Your task to perform on an android device: Go to Maps Image 0: 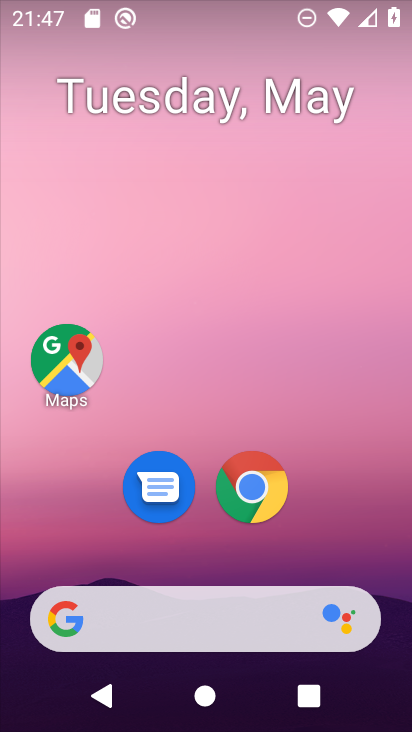
Step 0: press home button
Your task to perform on an android device: Go to Maps Image 1: 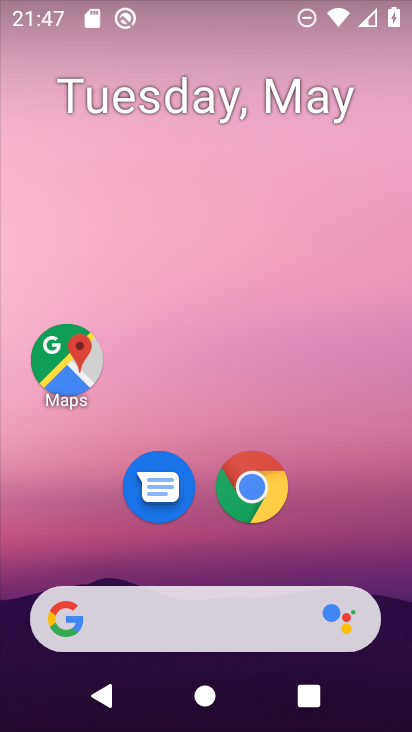
Step 1: click (73, 379)
Your task to perform on an android device: Go to Maps Image 2: 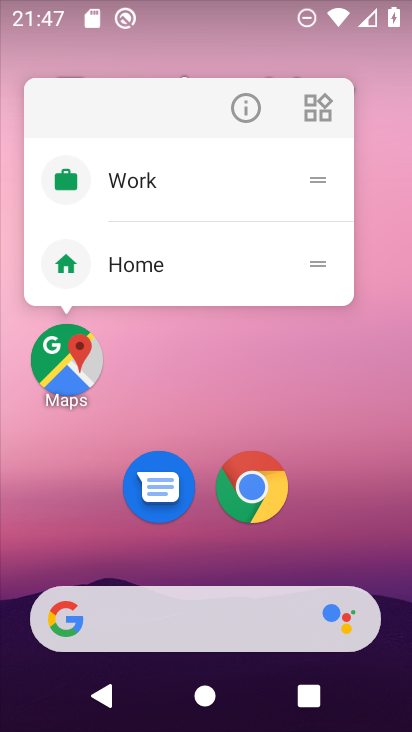
Step 2: click (64, 374)
Your task to perform on an android device: Go to Maps Image 3: 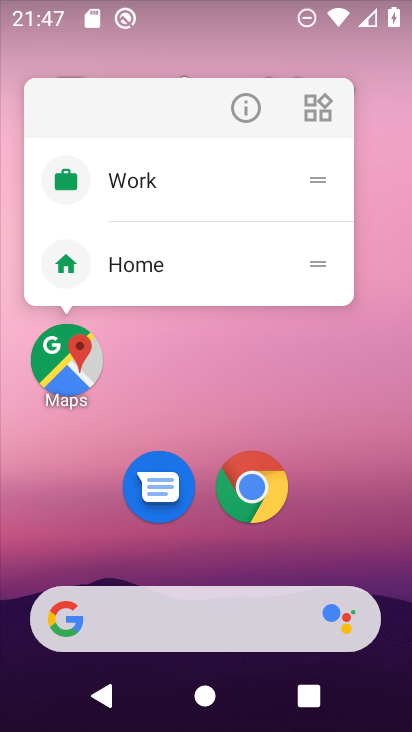
Step 3: click (64, 375)
Your task to perform on an android device: Go to Maps Image 4: 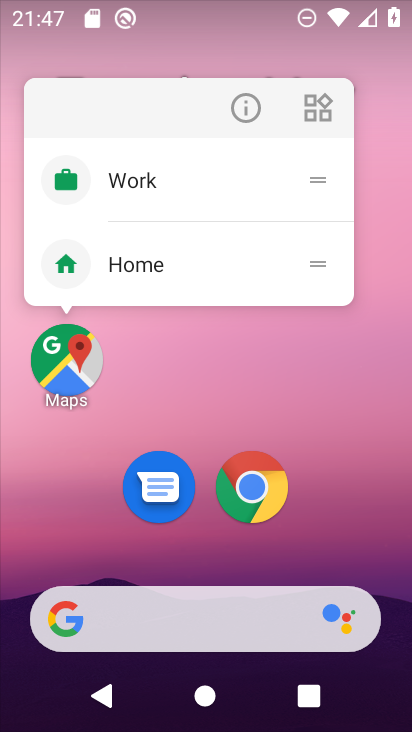
Step 4: click (71, 368)
Your task to perform on an android device: Go to Maps Image 5: 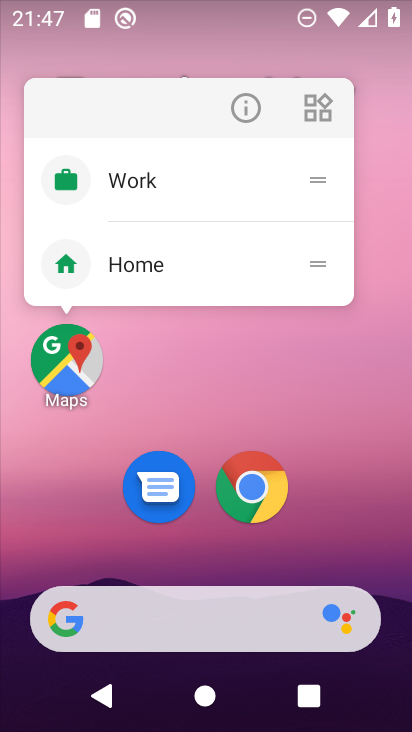
Step 5: click (61, 382)
Your task to perform on an android device: Go to Maps Image 6: 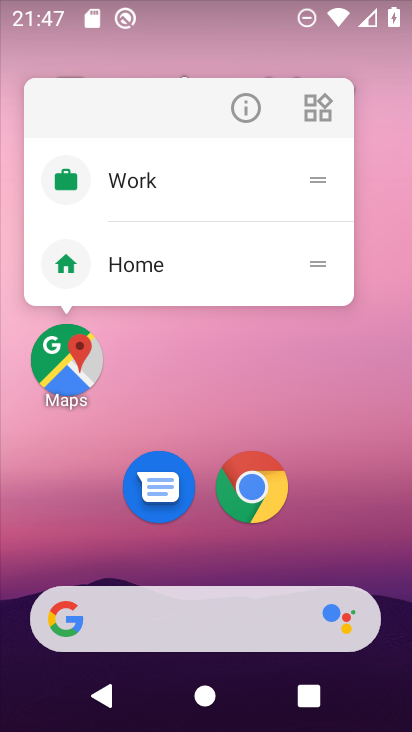
Step 6: click (65, 365)
Your task to perform on an android device: Go to Maps Image 7: 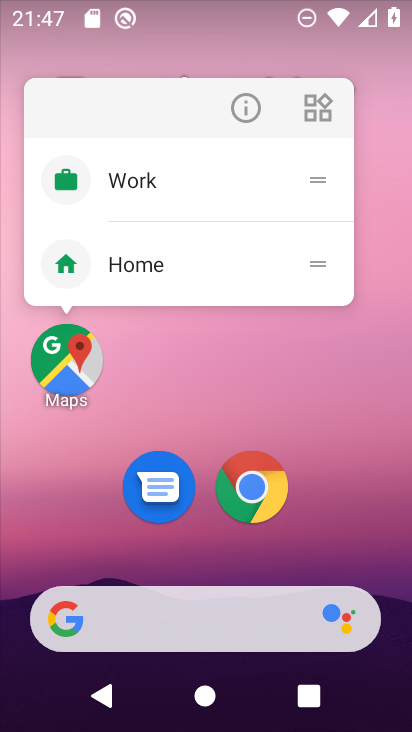
Step 7: click (71, 361)
Your task to perform on an android device: Go to Maps Image 8: 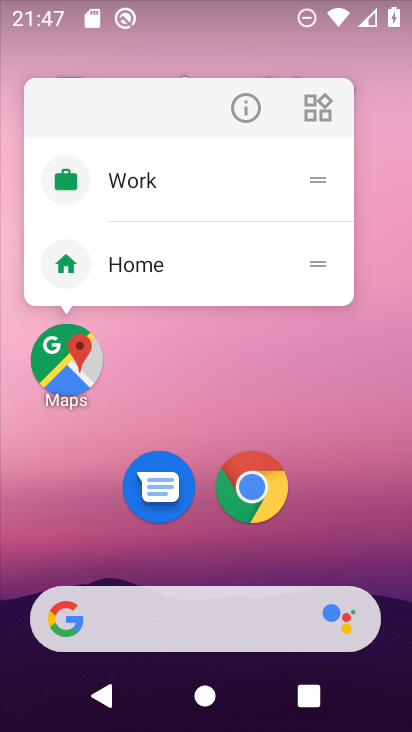
Step 8: click (60, 379)
Your task to perform on an android device: Go to Maps Image 9: 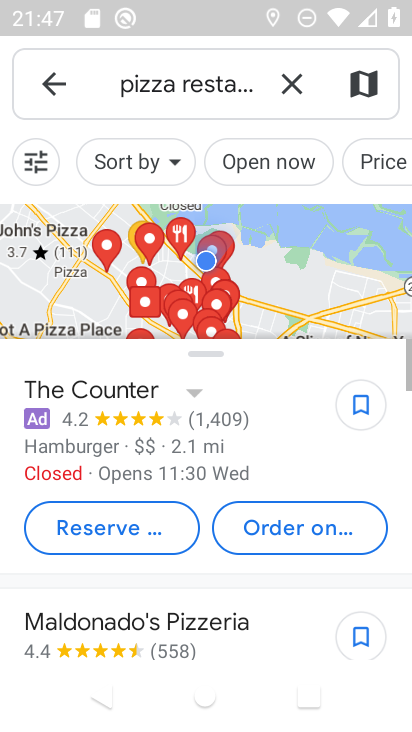
Step 9: click (59, 80)
Your task to perform on an android device: Go to Maps Image 10: 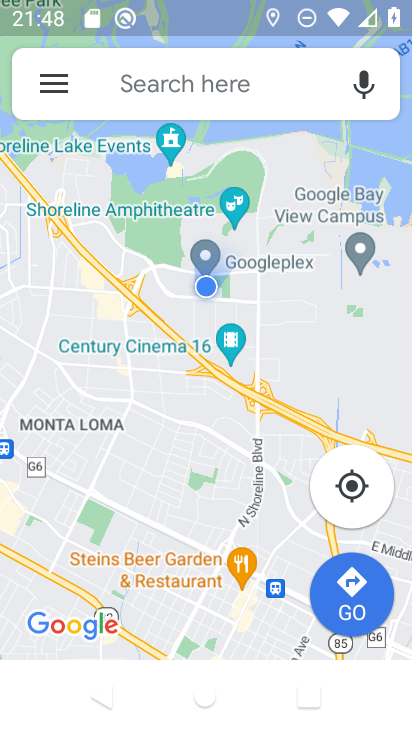
Step 10: task complete